Your task to perform on an android device: visit the assistant section in the google photos Image 0: 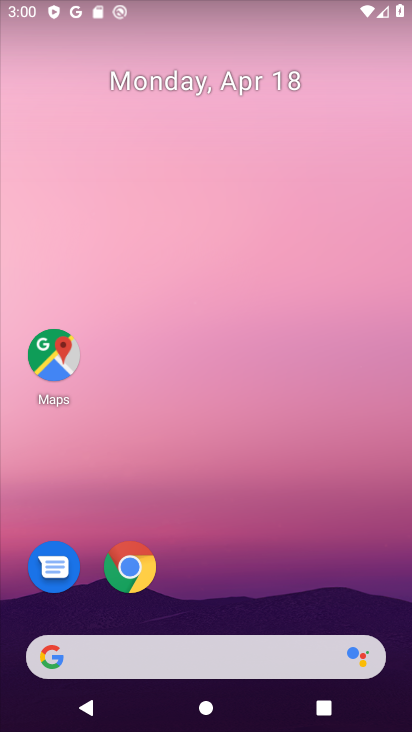
Step 0: drag from (245, 548) to (160, 94)
Your task to perform on an android device: visit the assistant section in the google photos Image 1: 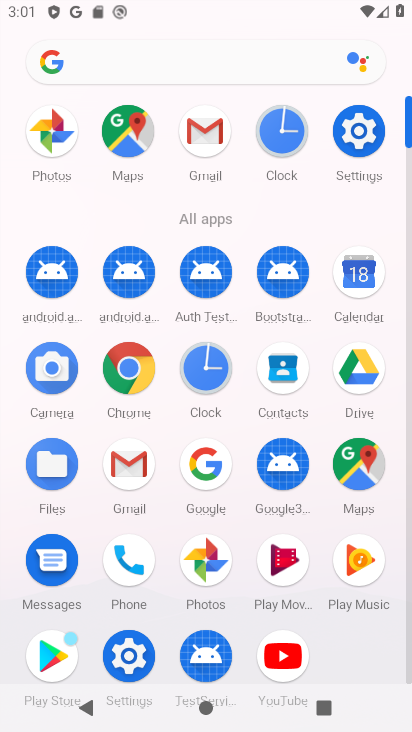
Step 1: click (202, 563)
Your task to perform on an android device: visit the assistant section in the google photos Image 2: 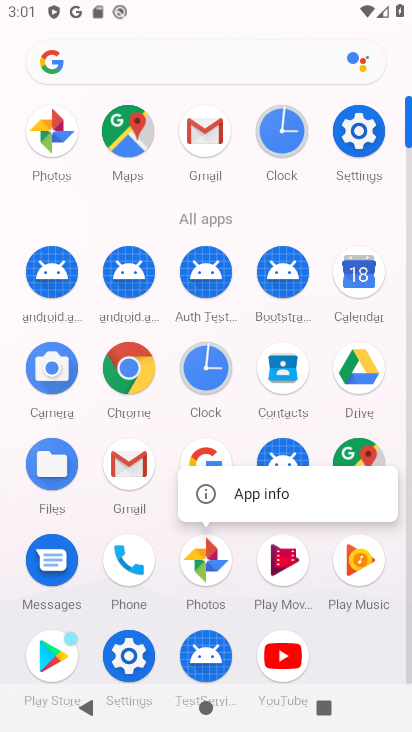
Step 2: click (202, 563)
Your task to perform on an android device: visit the assistant section in the google photos Image 3: 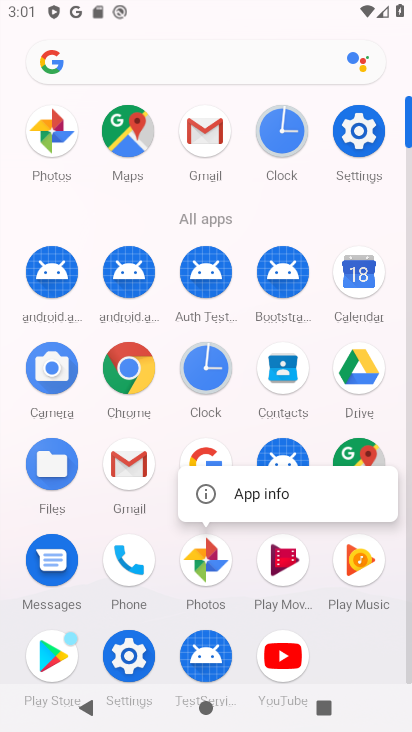
Step 3: click (216, 563)
Your task to perform on an android device: visit the assistant section in the google photos Image 4: 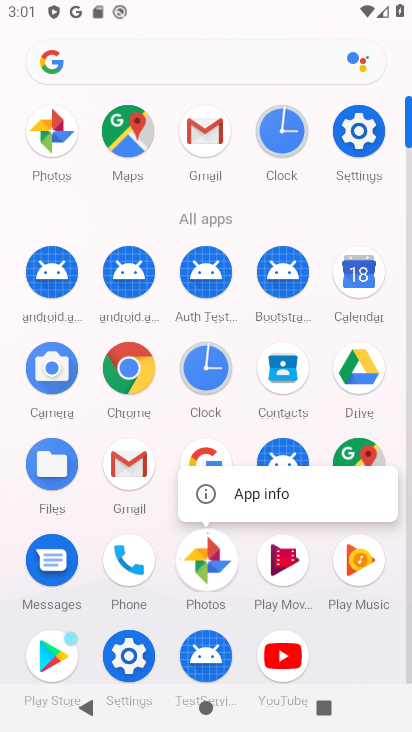
Step 4: click (217, 561)
Your task to perform on an android device: visit the assistant section in the google photos Image 5: 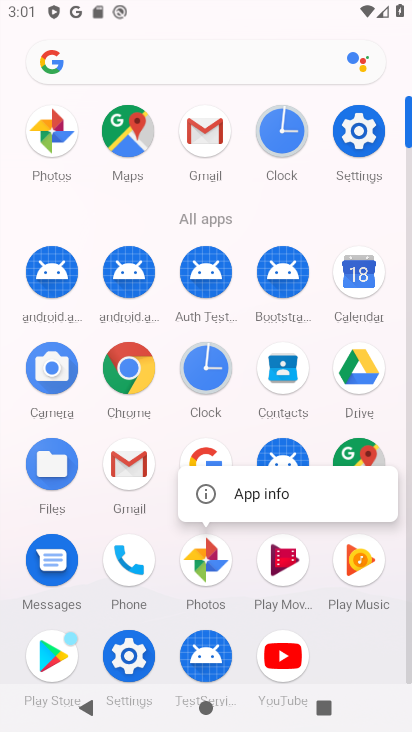
Step 5: click (201, 561)
Your task to perform on an android device: visit the assistant section in the google photos Image 6: 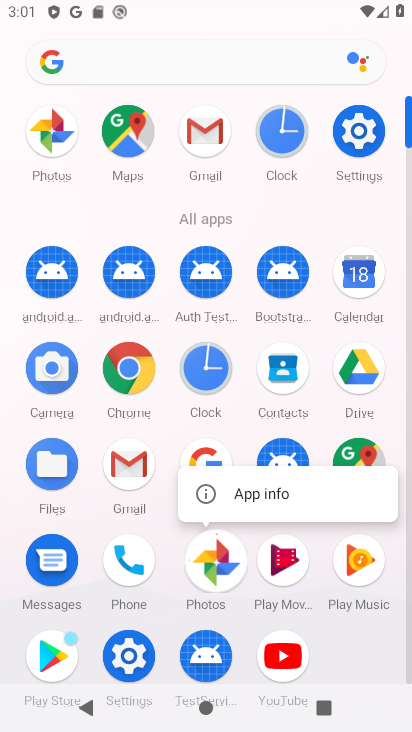
Step 6: click (210, 560)
Your task to perform on an android device: visit the assistant section in the google photos Image 7: 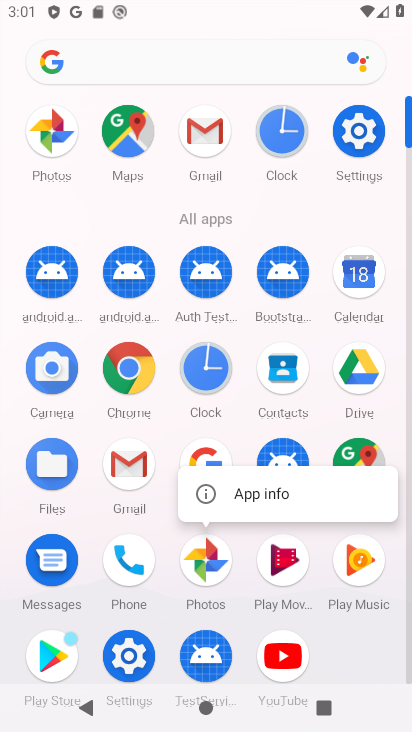
Step 7: click (204, 560)
Your task to perform on an android device: visit the assistant section in the google photos Image 8: 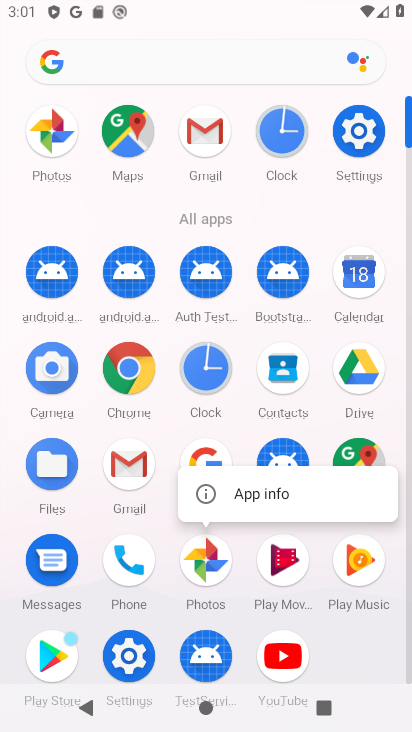
Step 8: click (285, 211)
Your task to perform on an android device: visit the assistant section in the google photos Image 9: 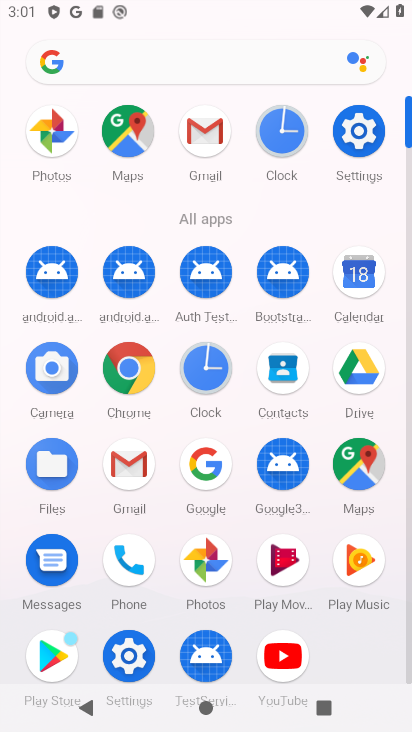
Step 9: click (44, 121)
Your task to perform on an android device: visit the assistant section in the google photos Image 10: 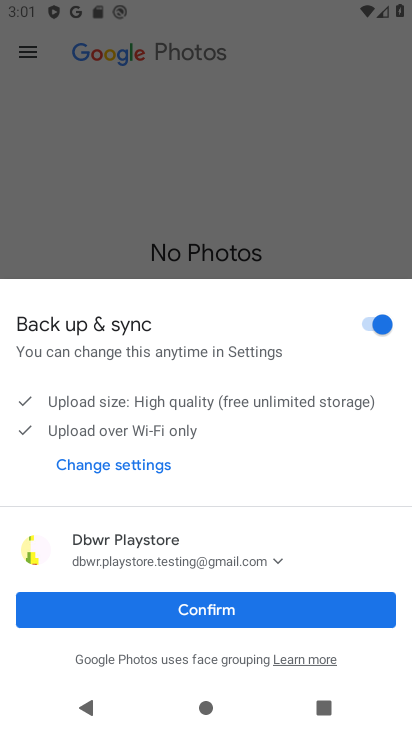
Step 10: click (223, 602)
Your task to perform on an android device: visit the assistant section in the google photos Image 11: 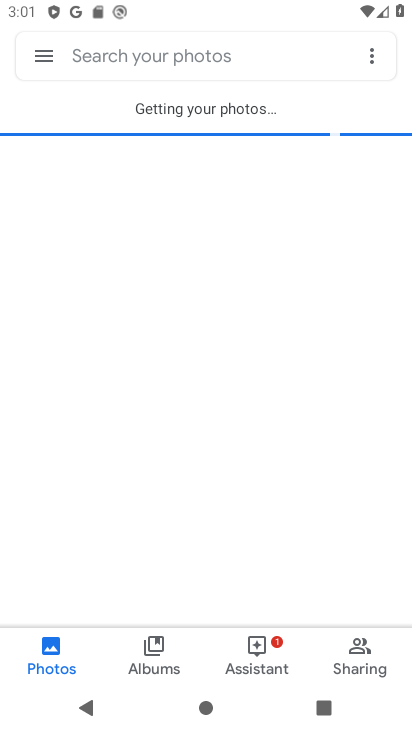
Step 11: click (256, 660)
Your task to perform on an android device: visit the assistant section in the google photos Image 12: 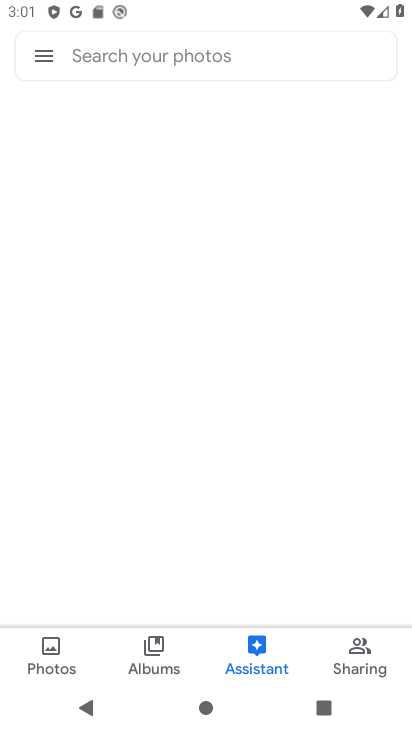
Step 12: click (263, 651)
Your task to perform on an android device: visit the assistant section in the google photos Image 13: 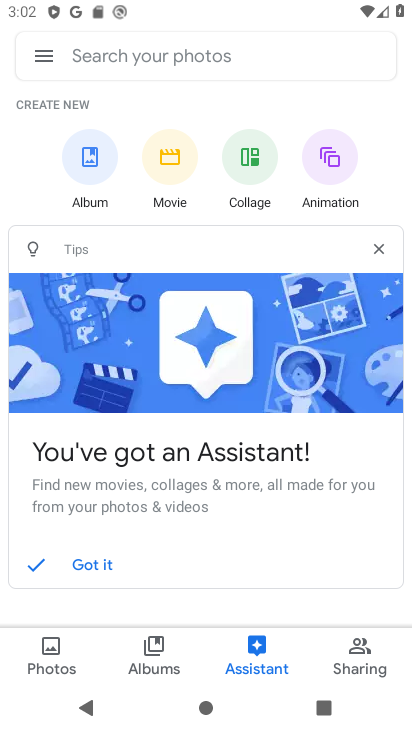
Step 13: task complete